Your task to perform on an android device: open app "Viber Messenger" (install if not already installed) Image 0: 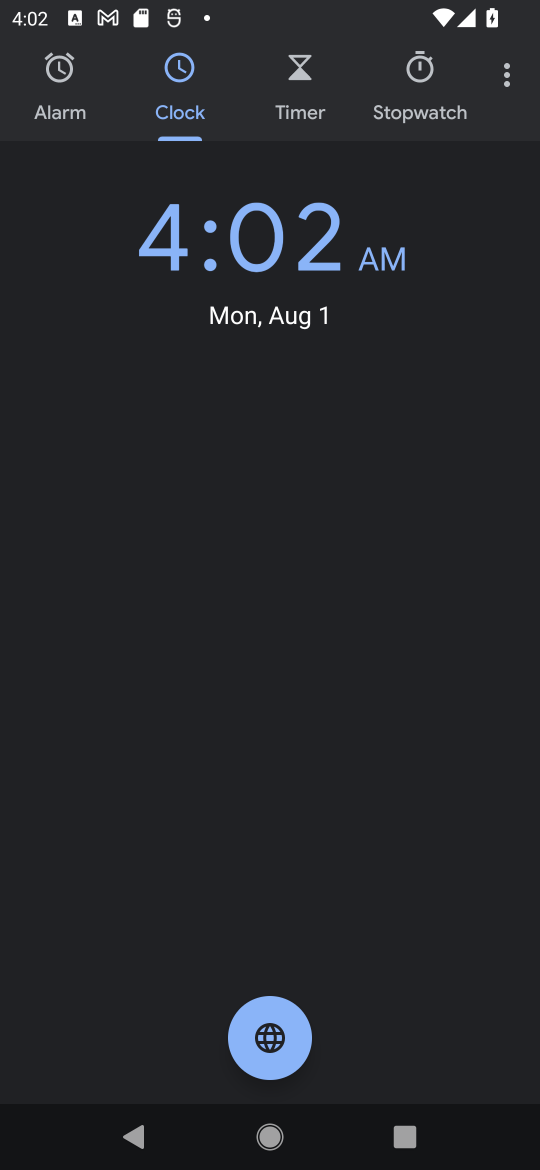
Step 0: press home button
Your task to perform on an android device: open app "Viber Messenger" (install if not already installed) Image 1: 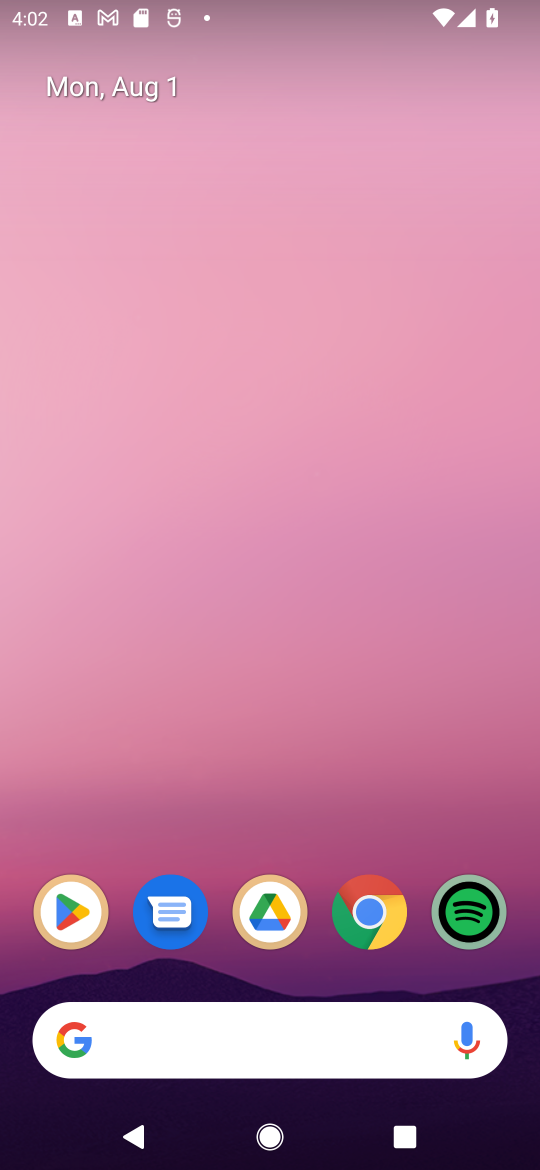
Step 1: click (72, 919)
Your task to perform on an android device: open app "Viber Messenger" (install if not already installed) Image 2: 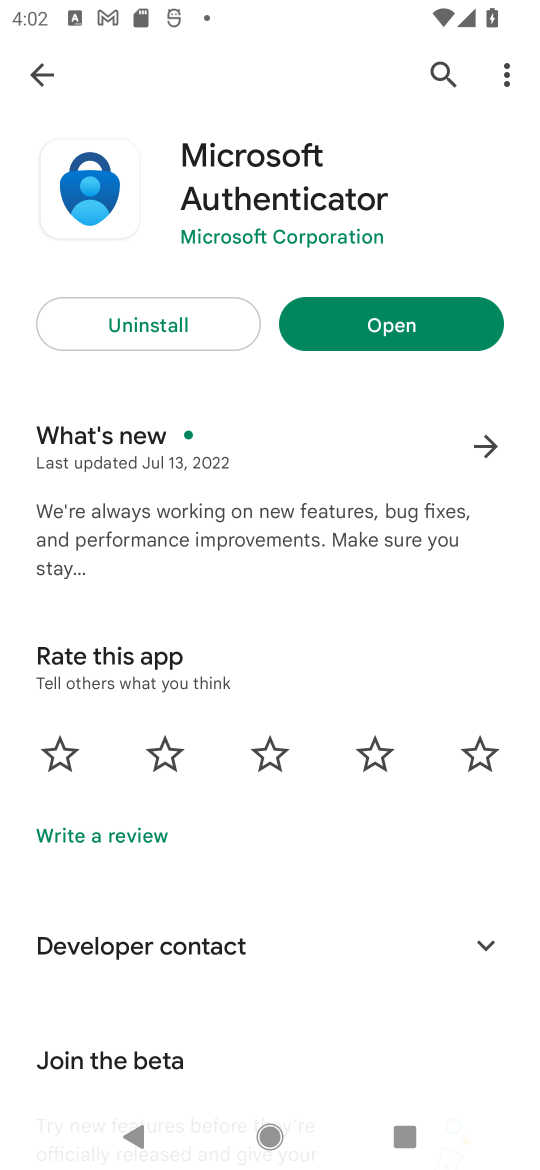
Step 2: click (436, 60)
Your task to perform on an android device: open app "Viber Messenger" (install if not already installed) Image 3: 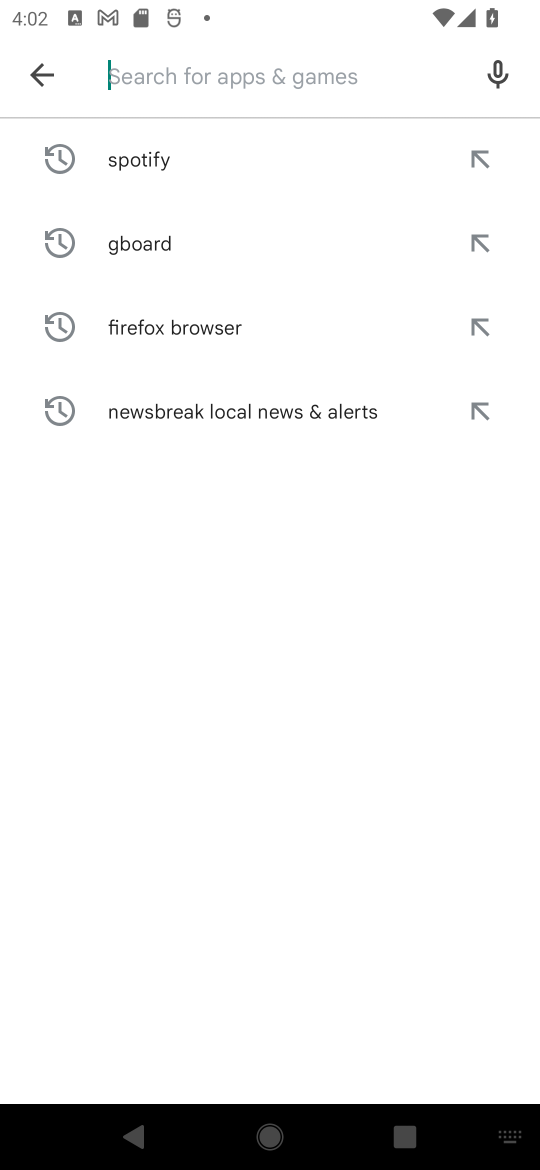
Step 3: type "Viber Messenger"
Your task to perform on an android device: open app "Viber Messenger" (install if not already installed) Image 4: 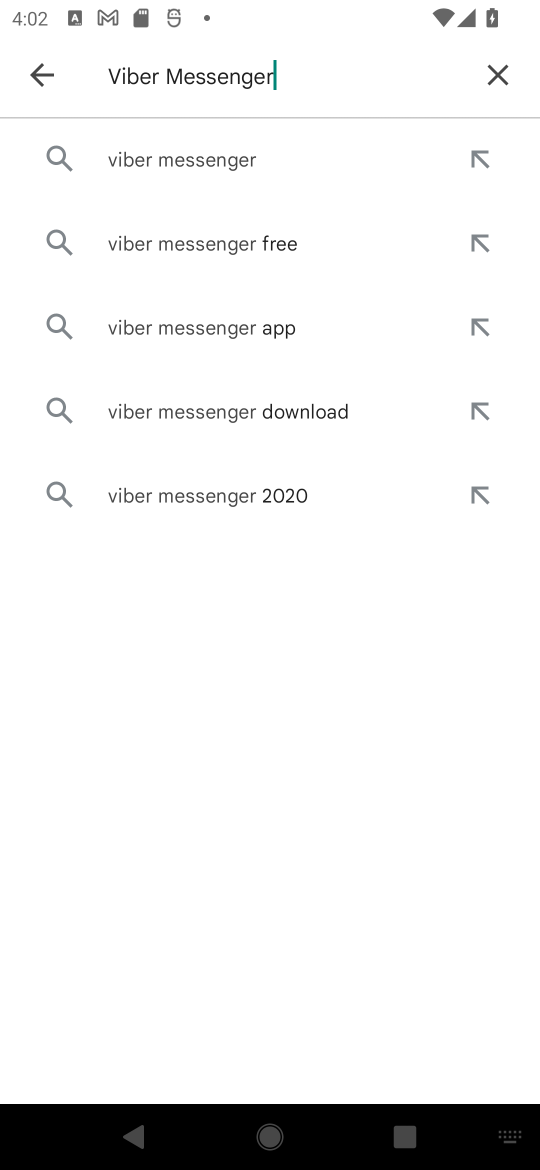
Step 4: click (231, 172)
Your task to perform on an android device: open app "Viber Messenger" (install if not already installed) Image 5: 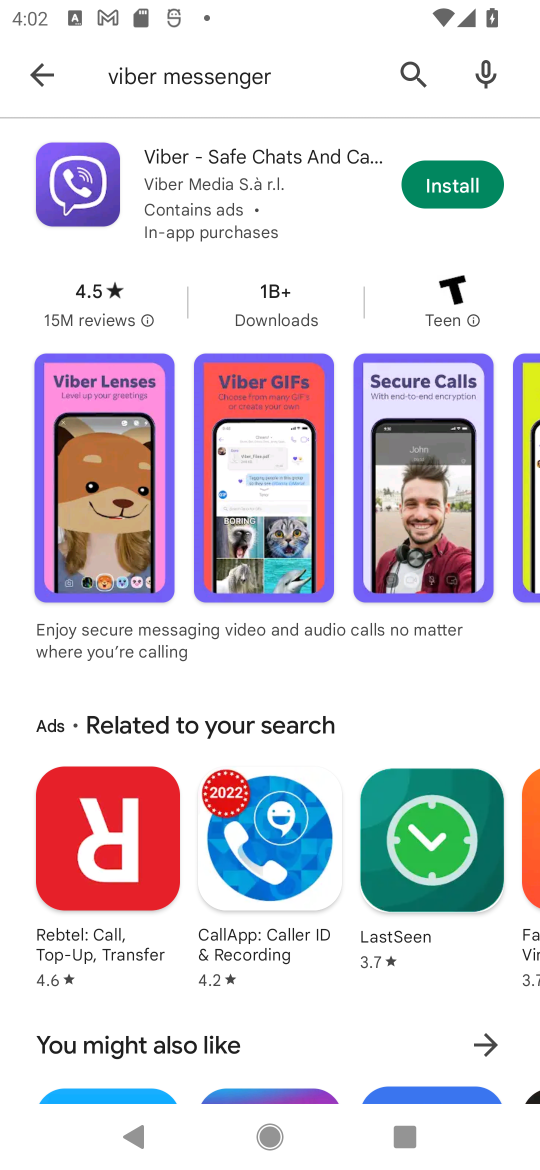
Step 5: click (441, 195)
Your task to perform on an android device: open app "Viber Messenger" (install if not already installed) Image 6: 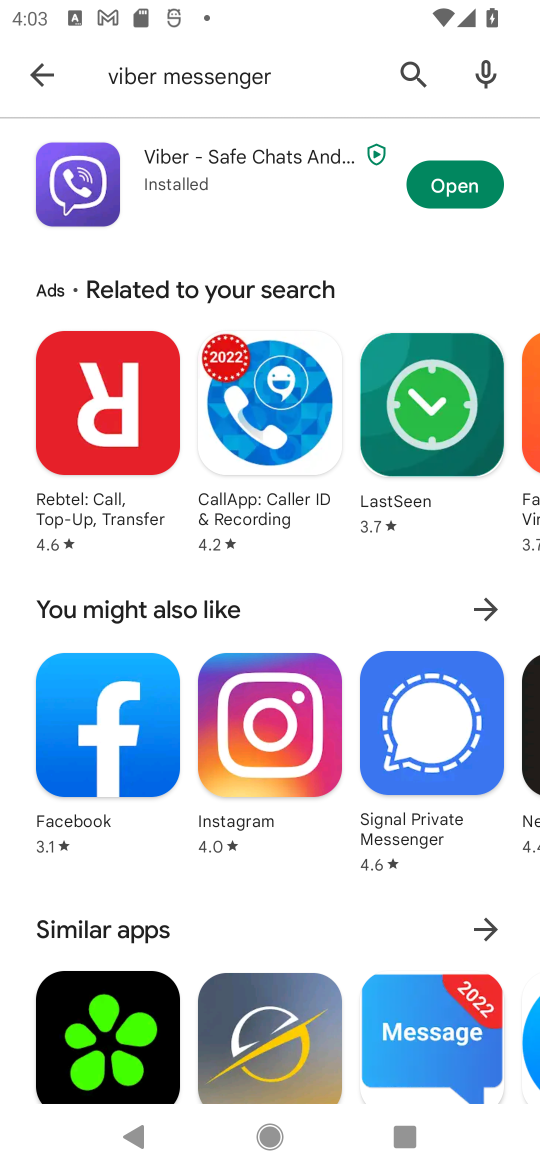
Step 6: click (438, 180)
Your task to perform on an android device: open app "Viber Messenger" (install if not already installed) Image 7: 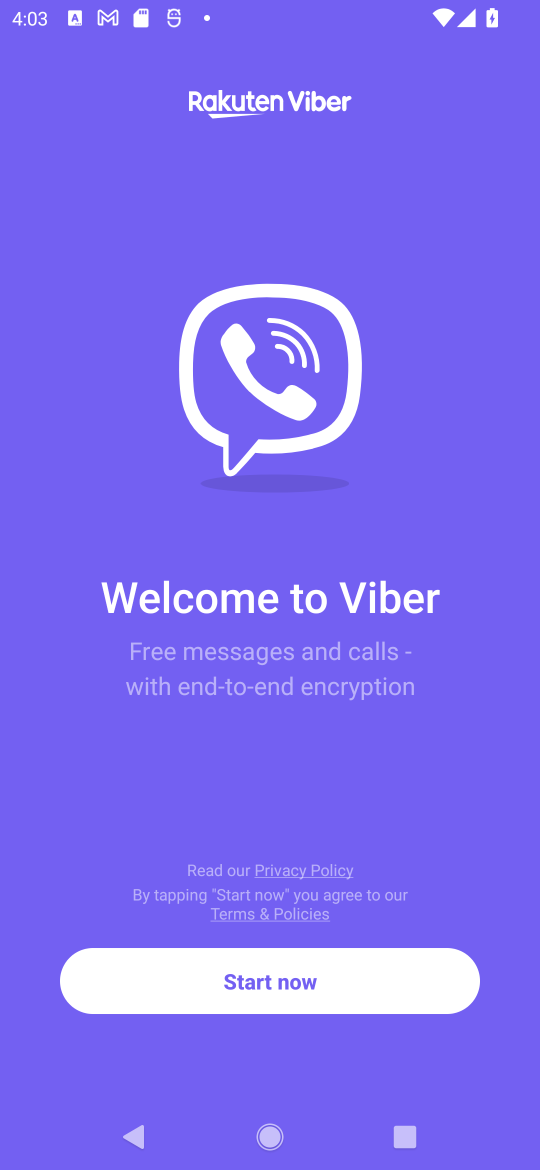
Step 7: task complete